Your task to perform on an android device: toggle improve location accuracy Image 0: 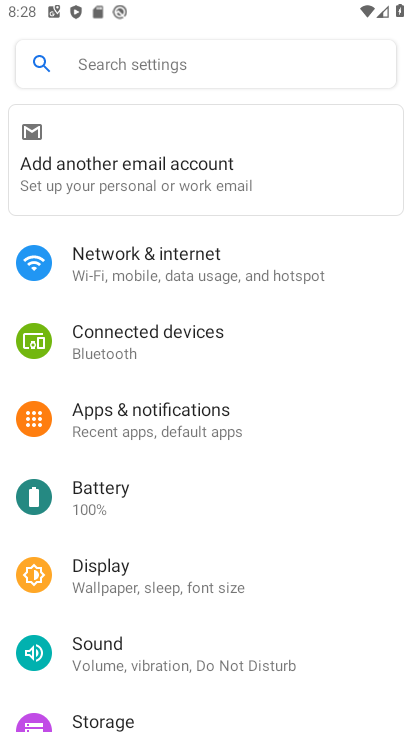
Step 0: drag from (266, 631) to (276, 277)
Your task to perform on an android device: toggle improve location accuracy Image 1: 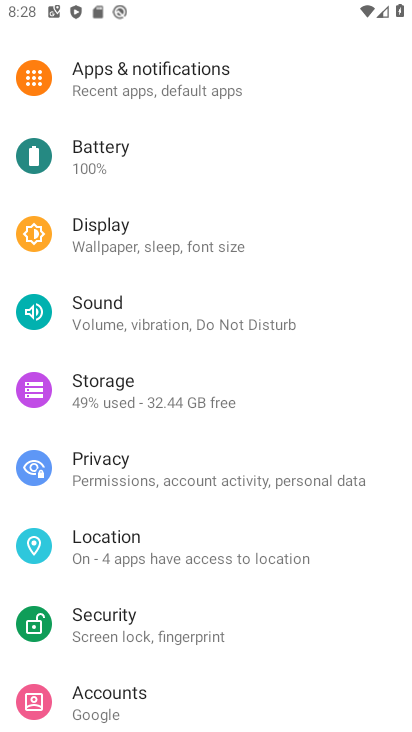
Step 1: click (166, 543)
Your task to perform on an android device: toggle improve location accuracy Image 2: 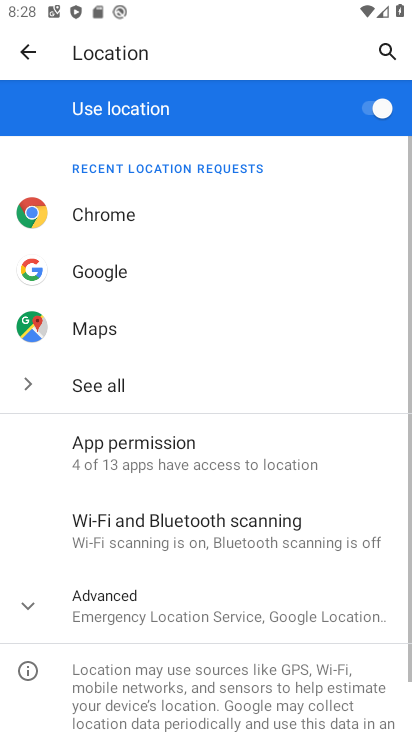
Step 2: click (28, 606)
Your task to perform on an android device: toggle improve location accuracy Image 3: 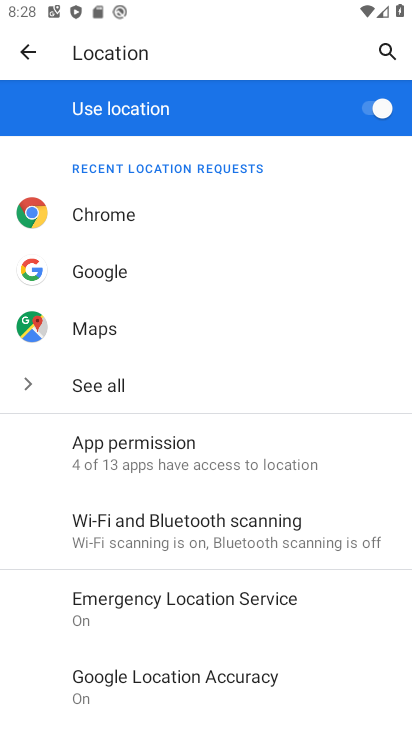
Step 3: click (193, 680)
Your task to perform on an android device: toggle improve location accuracy Image 4: 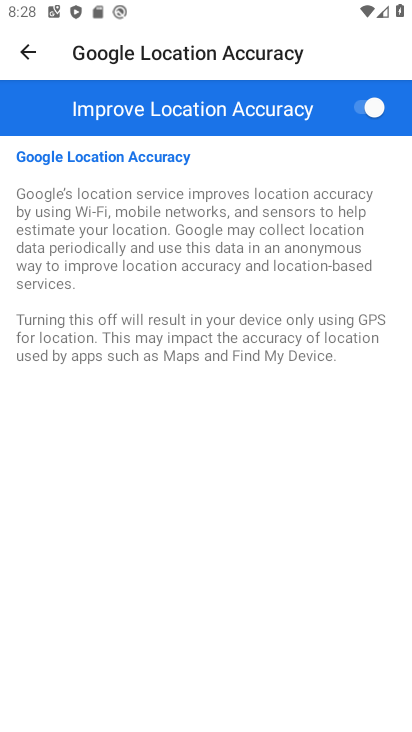
Step 4: click (366, 108)
Your task to perform on an android device: toggle improve location accuracy Image 5: 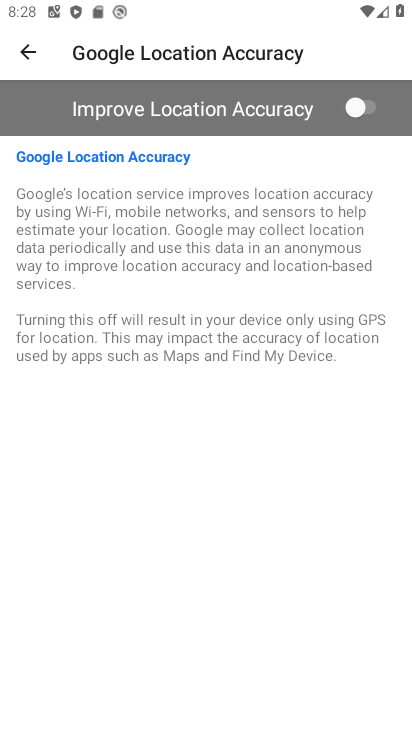
Step 5: task complete